Your task to perform on an android device: toggle show notifications on the lock screen Image 0: 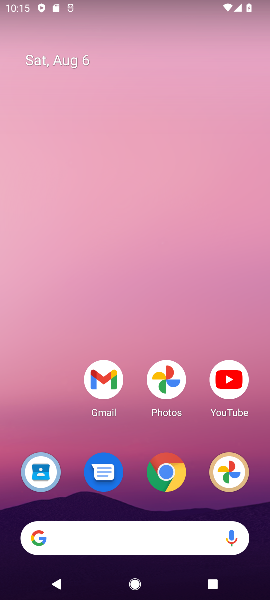
Step 0: press back button
Your task to perform on an android device: toggle show notifications on the lock screen Image 1: 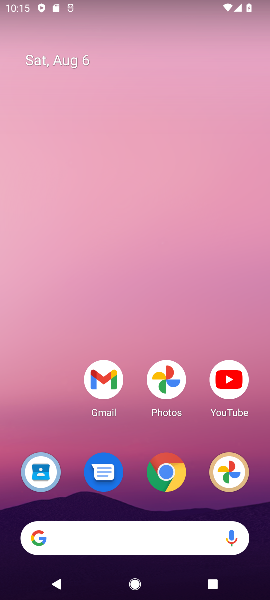
Step 1: drag from (187, 524) to (158, 120)
Your task to perform on an android device: toggle show notifications on the lock screen Image 2: 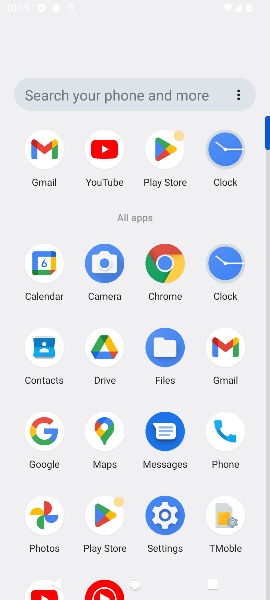
Step 2: drag from (213, 462) to (173, 220)
Your task to perform on an android device: toggle show notifications on the lock screen Image 3: 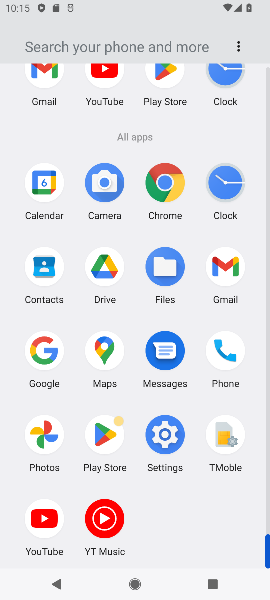
Step 3: click (167, 431)
Your task to perform on an android device: toggle show notifications on the lock screen Image 4: 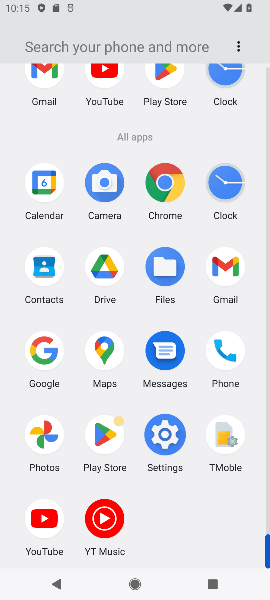
Step 4: click (167, 431)
Your task to perform on an android device: toggle show notifications on the lock screen Image 5: 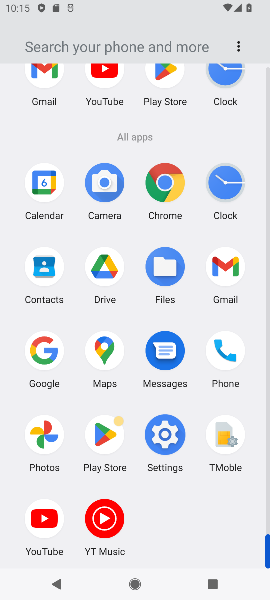
Step 5: click (166, 432)
Your task to perform on an android device: toggle show notifications on the lock screen Image 6: 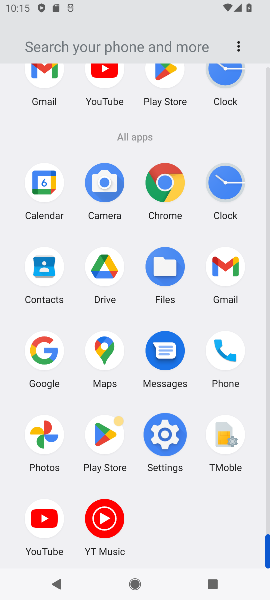
Step 6: click (165, 433)
Your task to perform on an android device: toggle show notifications on the lock screen Image 7: 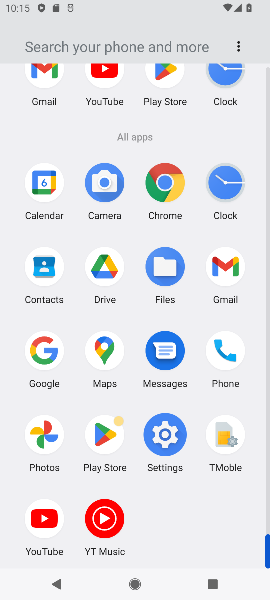
Step 7: click (165, 433)
Your task to perform on an android device: toggle show notifications on the lock screen Image 8: 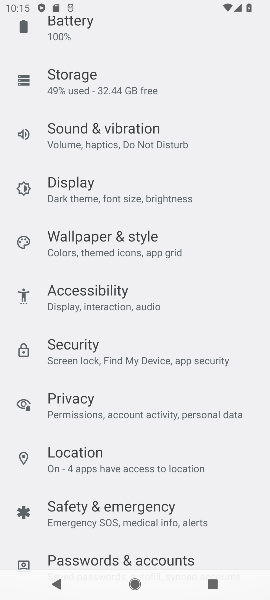
Step 8: click (165, 433)
Your task to perform on an android device: toggle show notifications on the lock screen Image 9: 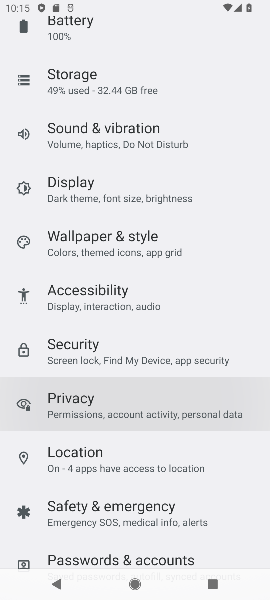
Step 9: click (165, 433)
Your task to perform on an android device: toggle show notifications on the lock screen Image 10: 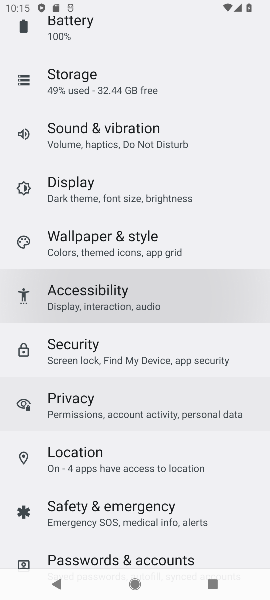
Step 10: click (164, 433)
Your task to perform on an android device: toggle show notifications on the lock screen Image 11: 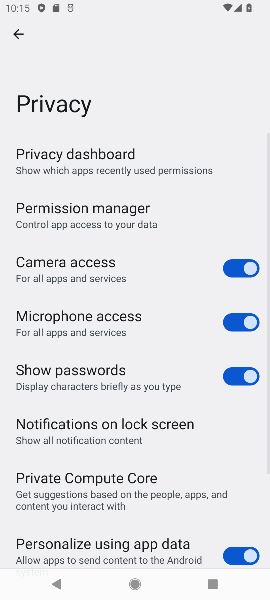
Step 11: click (15, 28)
Your task to perform on an android device: toggle show notifications on the lock screen Image 12: 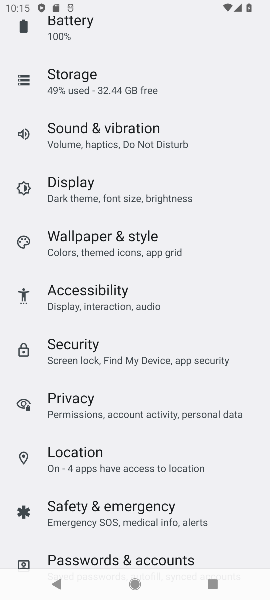
Step 12: drag from (66, 214) to (74, 536)
Your task to perform on an android device: toggle show notifications on the lock screen Image 13: 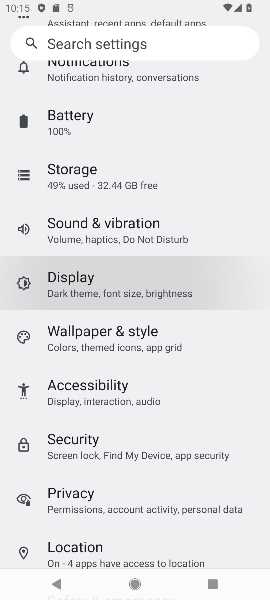
Step 13: drag from (89, 265) to (160, 499)
Your task to perform on an android device: toggle show notifications on the lock screen Image 14: 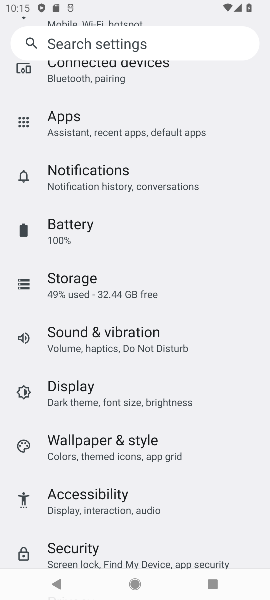
Step 14: drag from (73, 185) to (117, 449)
Your task to perform on an android device: toggle show notifications on the lock screen Image 15: 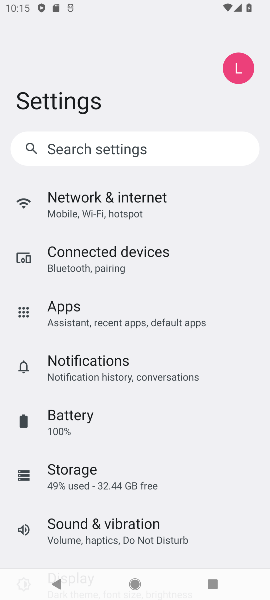
Step 15: drag from (88, 179) to (130, 418)
Your task to perform on an android device: toggle show notifications on the lock screen Image 16: 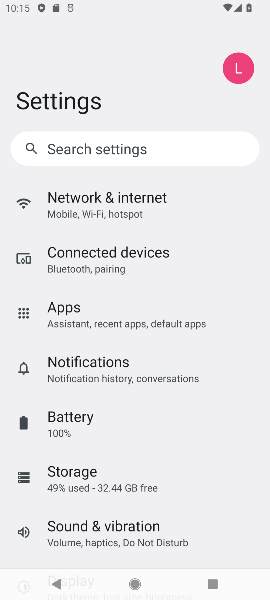
Step 16: drag from (141, 227) to (138, 418)
Your task to perform on an android device: toggle show notifications on the lock screen Image 17: 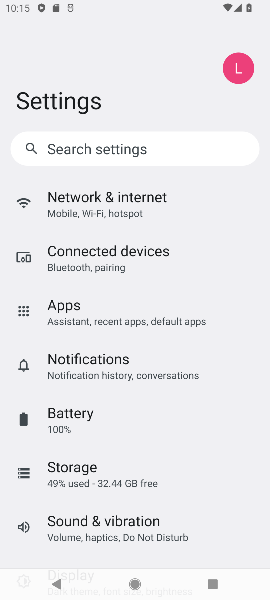
Step 17: click (76, 350)
Your task to perform on an android device: toggle show notifications on the lock screen Image 18: 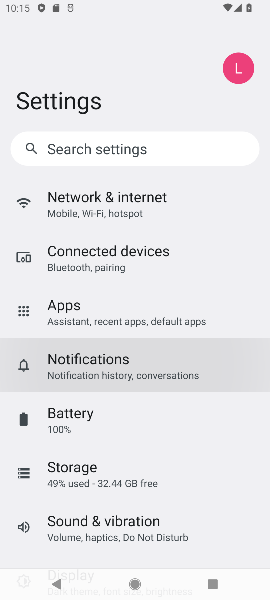
Step 18: click (77, 359)
Your task to perform on an android device: toggle show notifications on the lock screen Image 19: 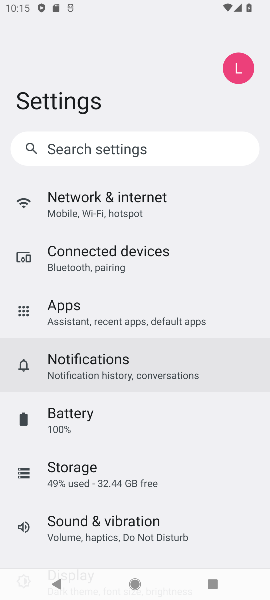
Step 19: click (77, 359)
Your task to perform on an android device: toggle show notifications on the lock screen Image 20: 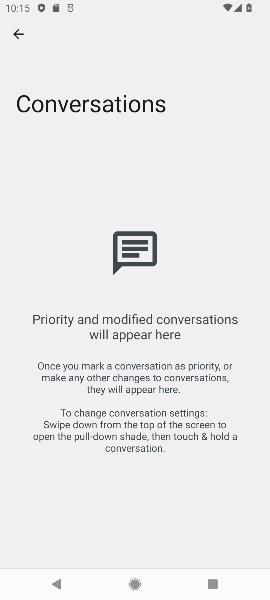
Step 20: click (15, 33)
Your task to perform on an android device: toggle show notifications on the lock screen Image 21: 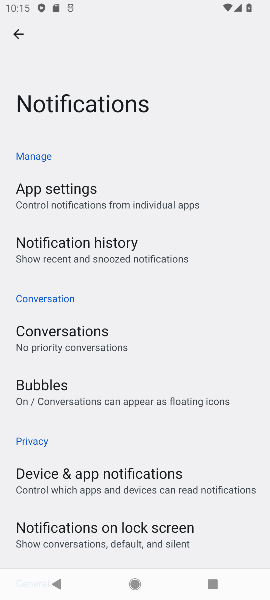
Step 21: click (88, 531)
Your task to perform on an android device: toggle show notifications on the lock screen Image 22: 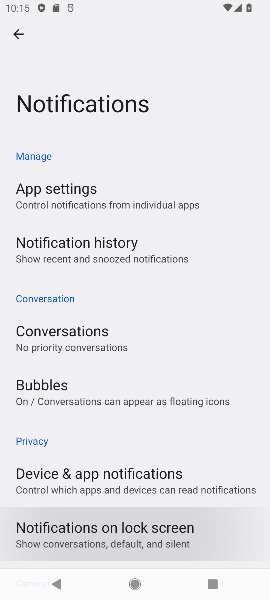
Step 22: click (88, 531)
Your task to perform on an android device: toggle show notifications on the lock screen Image 23: 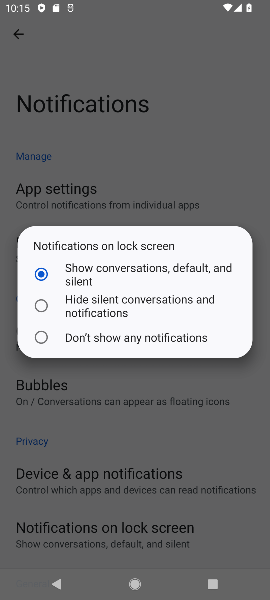
Step 23: click (37, 306)
Your task to perform on an android device: toggle show notifications on the lock screen Image 24: 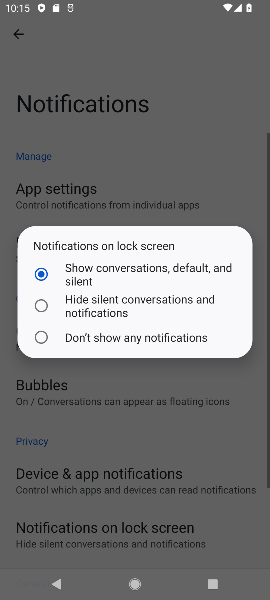
Step 24: task complete